Your task to perform on an android device: Go to location settings Image 0: 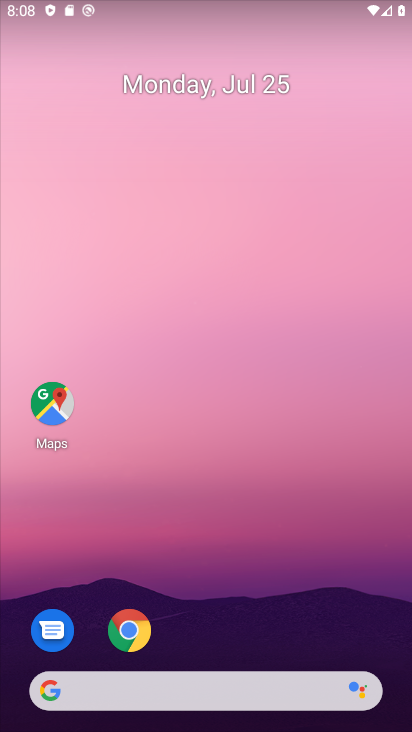
Step 0: drag from (68, 507) to (364, 18)
Your task to perform on an android device: Go to location settings Image 1: 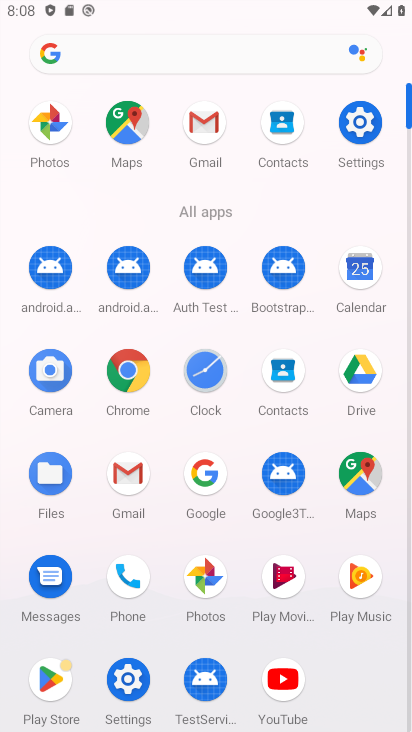
Step 1: click (116, 689)
Your task to perform on an android device: Go to location settings Image 2: 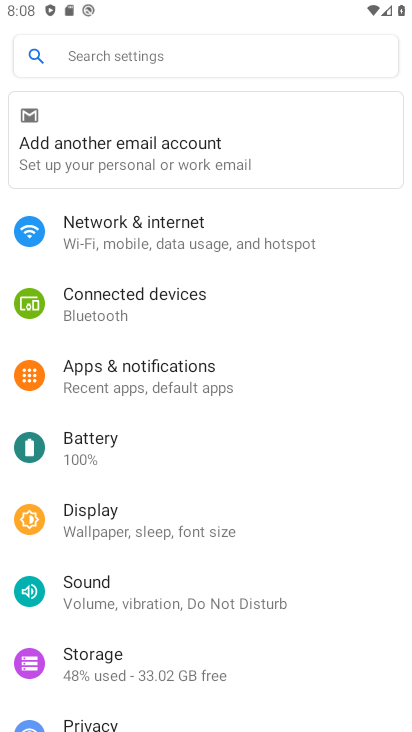
Step 2: drag from (291, 605) to (353, 285)
Your task to perform on an android device: Go to location settings Image 3: 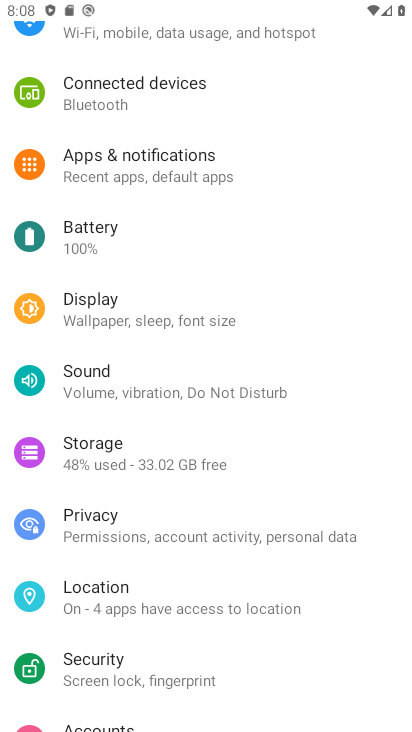
Step 3: click (147, 591)
Your task to perform on an android device: Go to location settings Image 4: 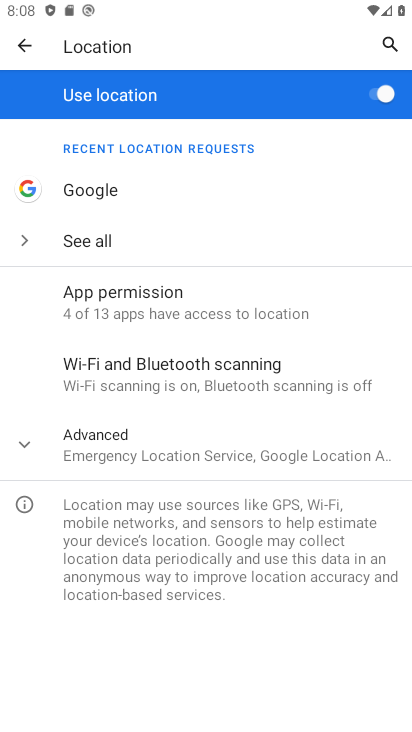
Step 4: task complete